Your task to perform on an android device: Show me the alarms in the clock app Image 0: 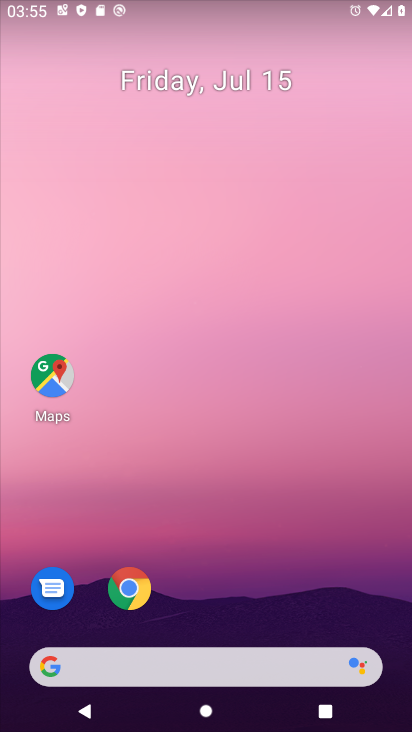
Step 0: drag from (164, 671) to (209, 52)
Your task to perform on an android device: Show me the alarms in the clock app Image 1: 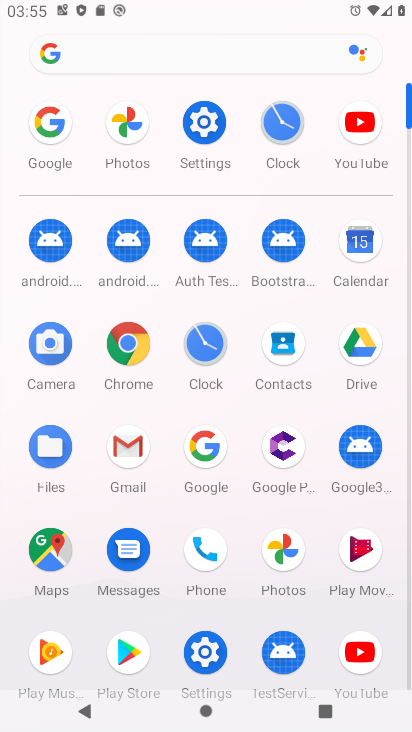
Step 1: click (281, 123)
Your task to perform on an android device: Show me the alarms in the clock app Image 2: 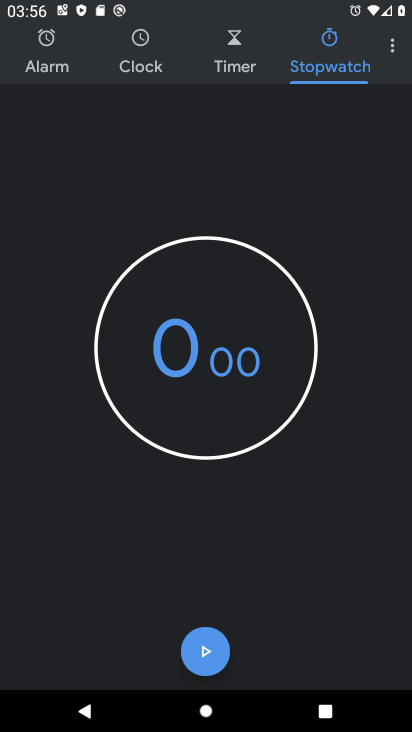
Step 2: click (45, 43)
Your task to perform on an android device: Show me the alarms in the clock app Image 3: 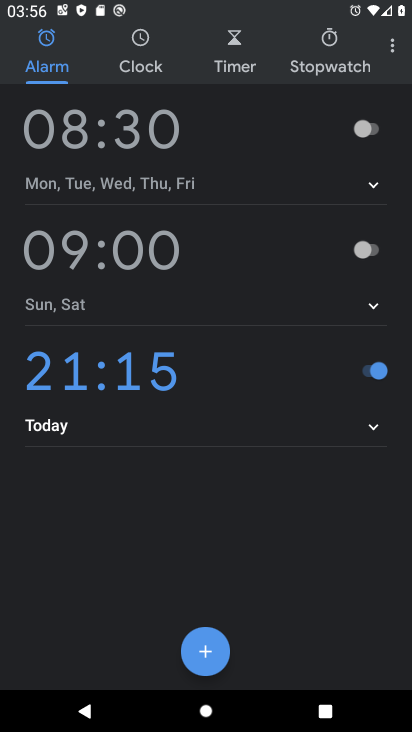
Step 3: click (209, 659)
Your task to perform on an android device: Show me the alarms in the clock app Image 4: 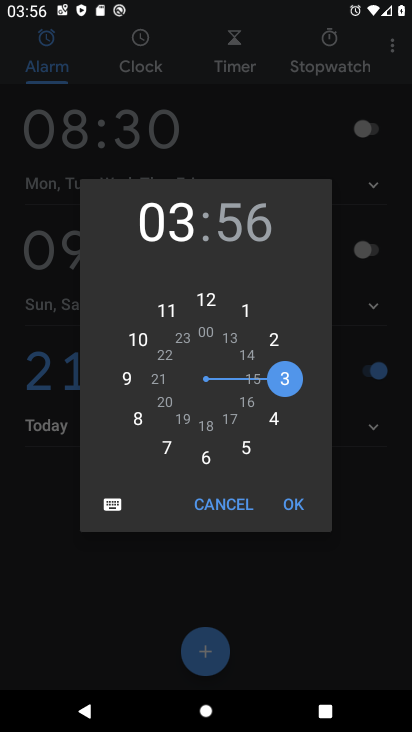
Step 4: click (166, 363)
Your task to perform on an android device: Show me the alarms in the clock app Image 5: 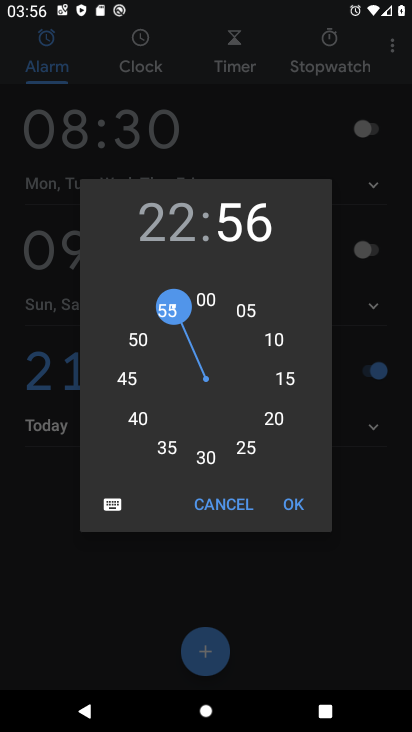
Step 5: click (168, 445)
Your task to perform on an android device: Show me the alarms in the clock app Image 6: 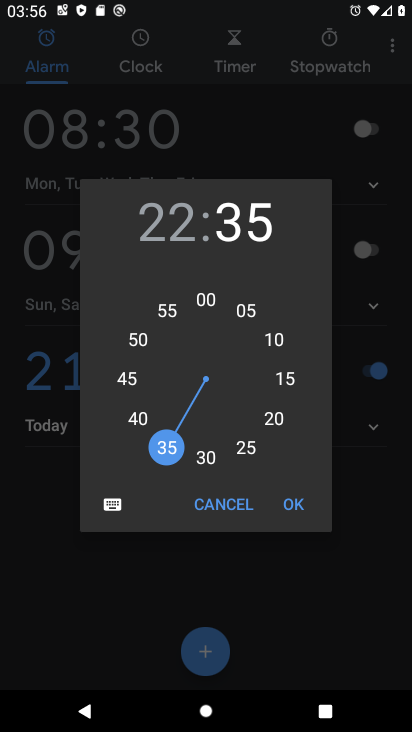
Step 6: click (291, 497)
Your task to perform on an android device: Show me the alarms in the clock app Image 7: 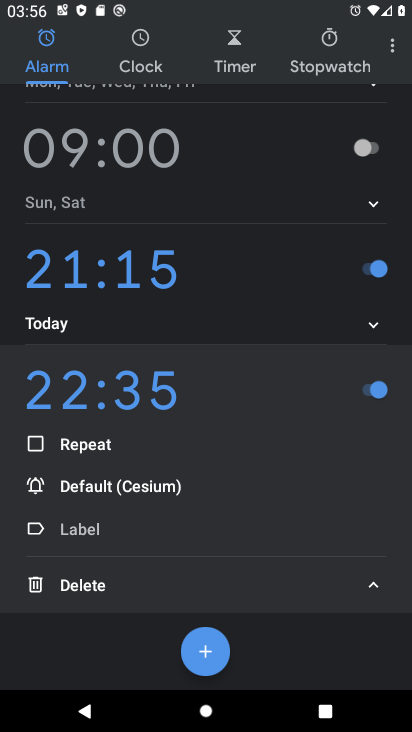
Step 7: click (372, 589)
Your task to perform on an android device: Show me the alarms in the clock app Image 8: 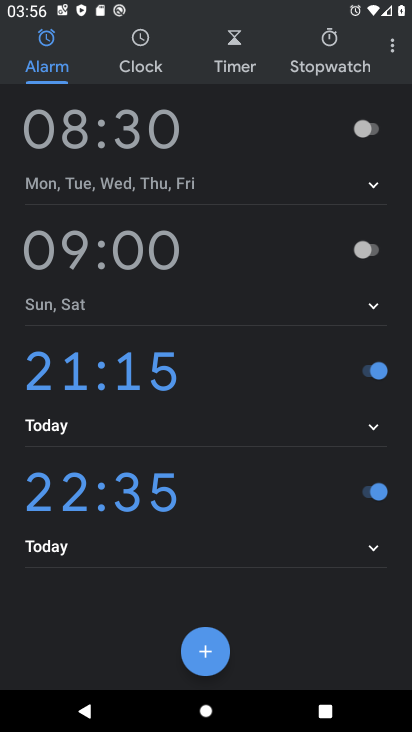
Step 8: task complete